Your task to perform on an android device: Open the calendar and show me this week's events? Image 0: 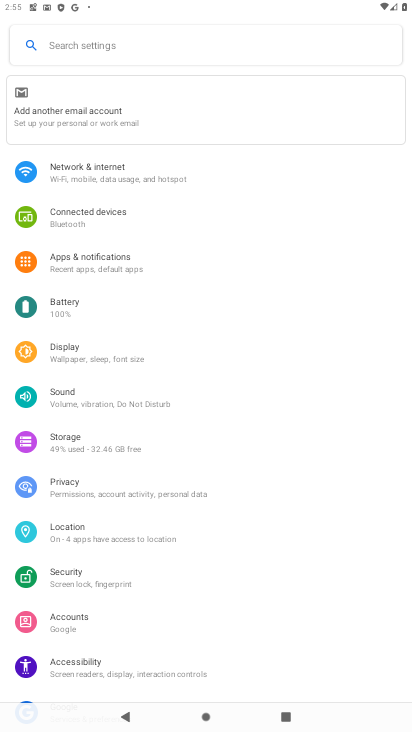
Step 0: press home button
Your task to perform on an android device: Open the calendar and show me this week's events? Image 1: 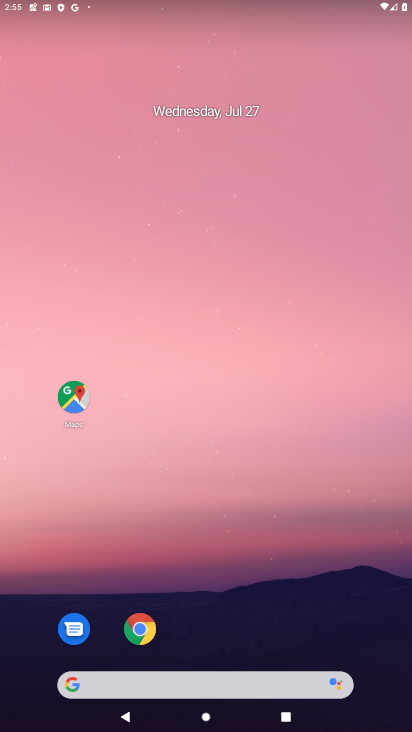
Step 1: drag from (226, 664) to (244, 134)
Your task to perform on an android device: Open the calendar and show me this week's events? Image 2: 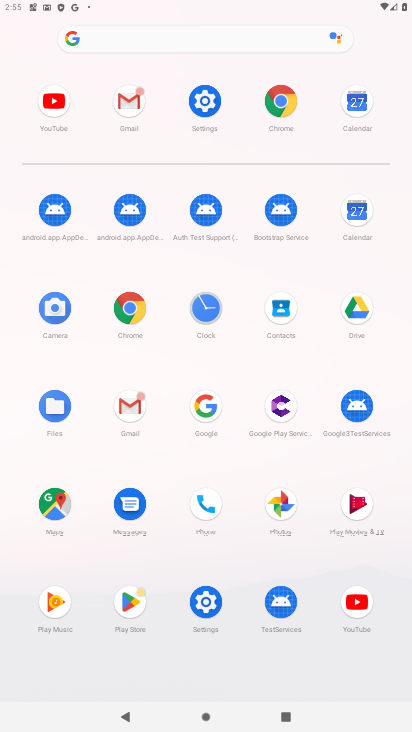
Step 2: click (367, 106)
Your task to perform on an android device: Open the calendar and show me this week's events? Image 3: 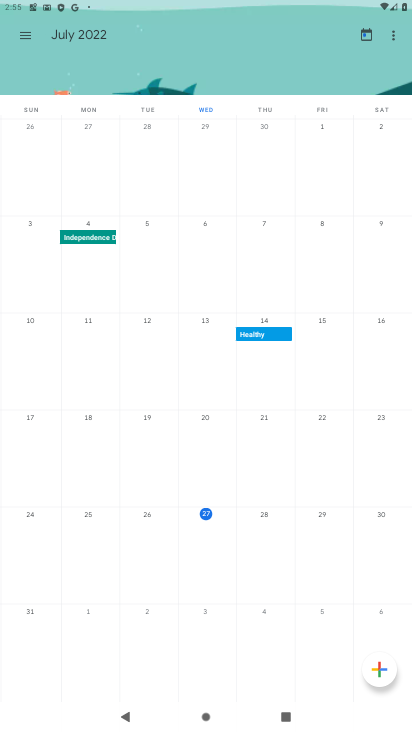
Step 3: task complete